Your task to perform on an android device: open app "Mercado Libre" (install if not already installed) Image 0: 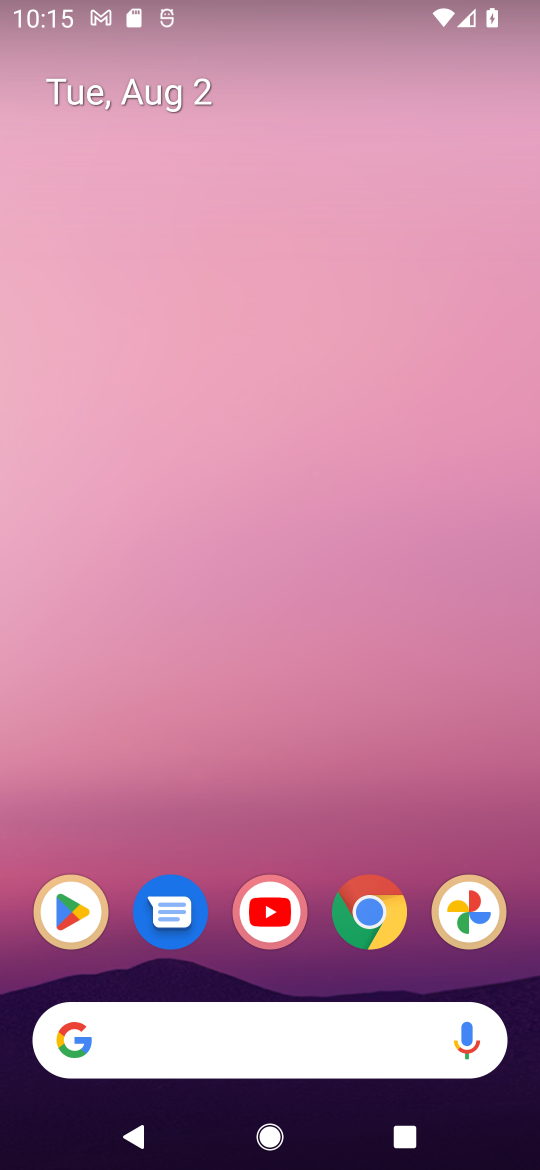
Step 0: drag from (251, 842) to (252, 342)
Your task to perform on an android device: open app "Mercado Libre" (install if not already installed) Image 1: 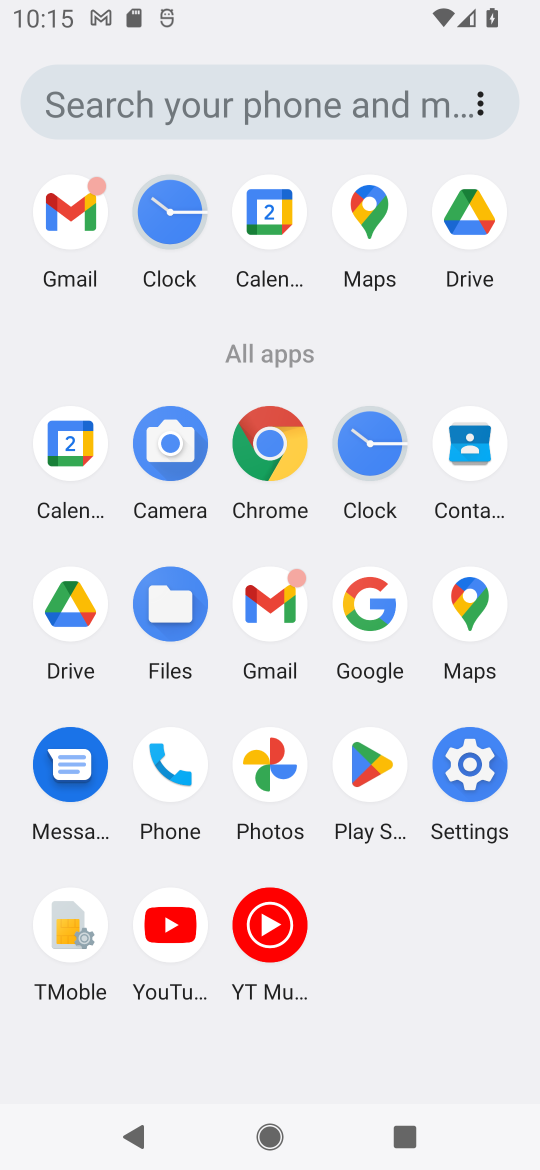
Step 1: click (371, 777)
Your task to perform on an android device: open app "Mercado Libre" (install if not already installed) Image 2: 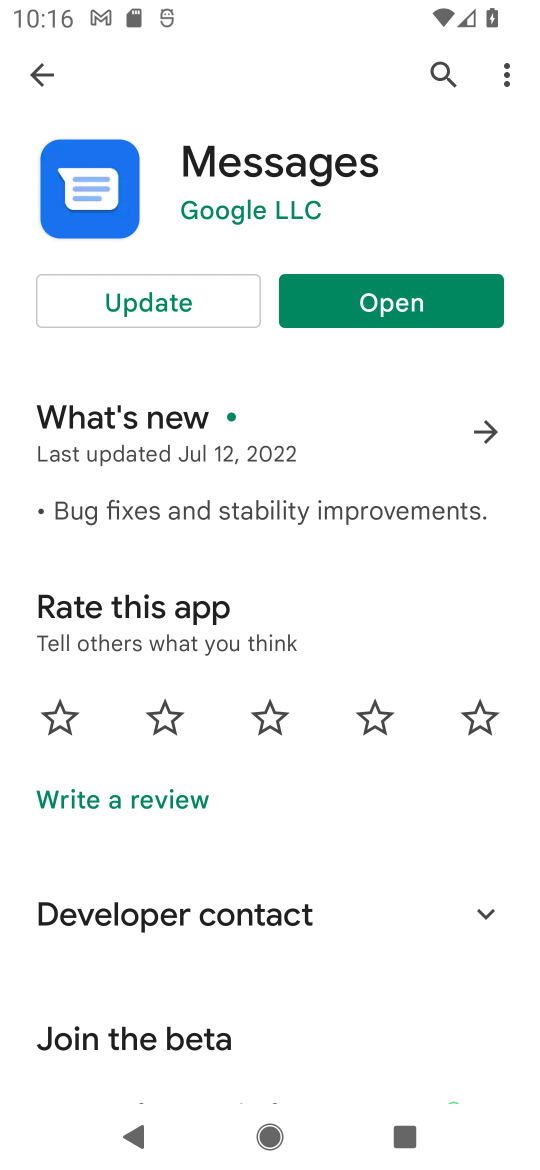
Step 2: click (438, 83)
Your task to perform on an android device: open app "Mercado Libre" (install if not already installed) Image 3: 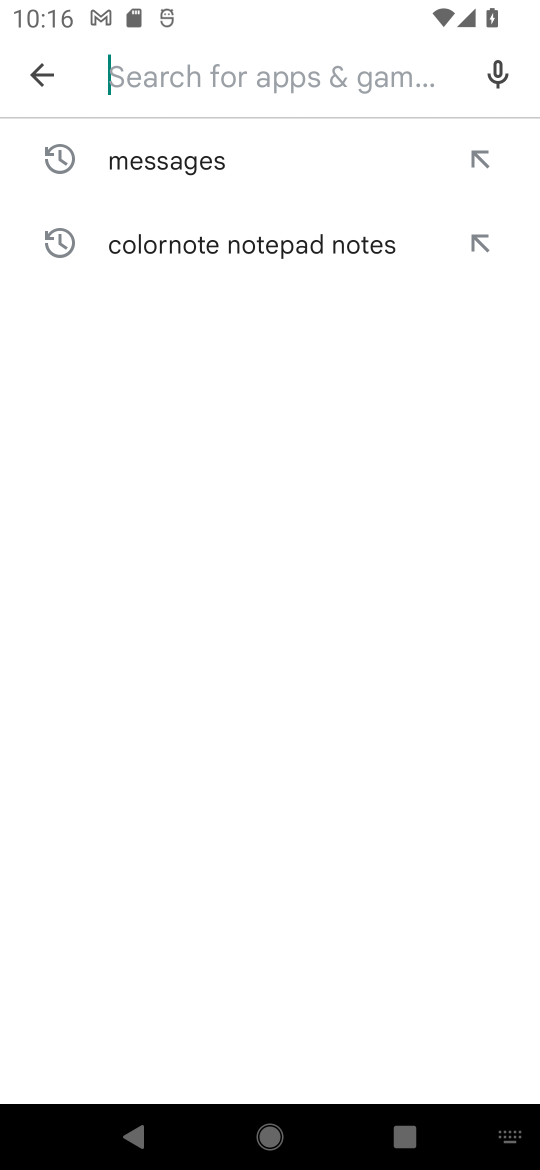
Step 3: type "Mercado Libre"
Your task to perform on an android device: open app "Mercado Libre" (install if not already installed) Image 4: 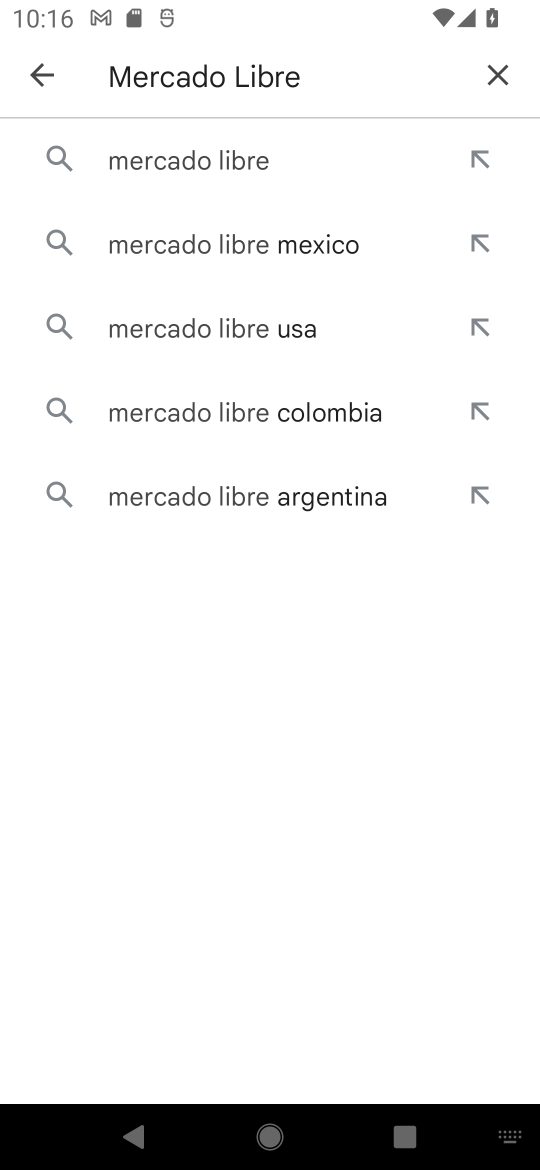
Step 4: click (209, 154)
Your task to perform on an android device: open app "Mercado Libre" (install if not already installed) Image 5: 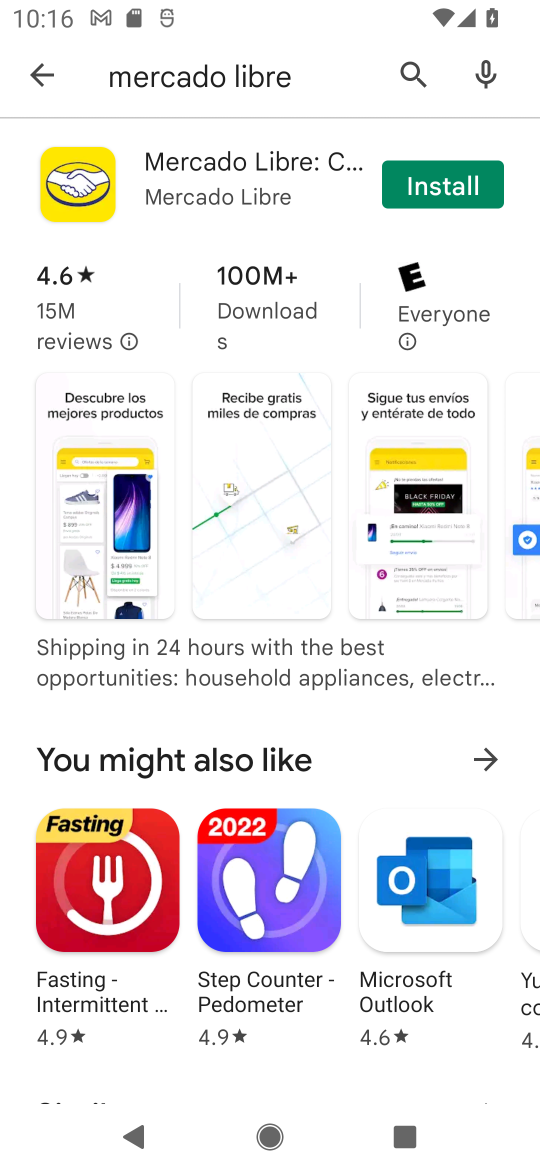
Step 5: click (423, 190)
Your task to perform on an android device: open app "Mercado Libre" (install if not already installed) Image 6: 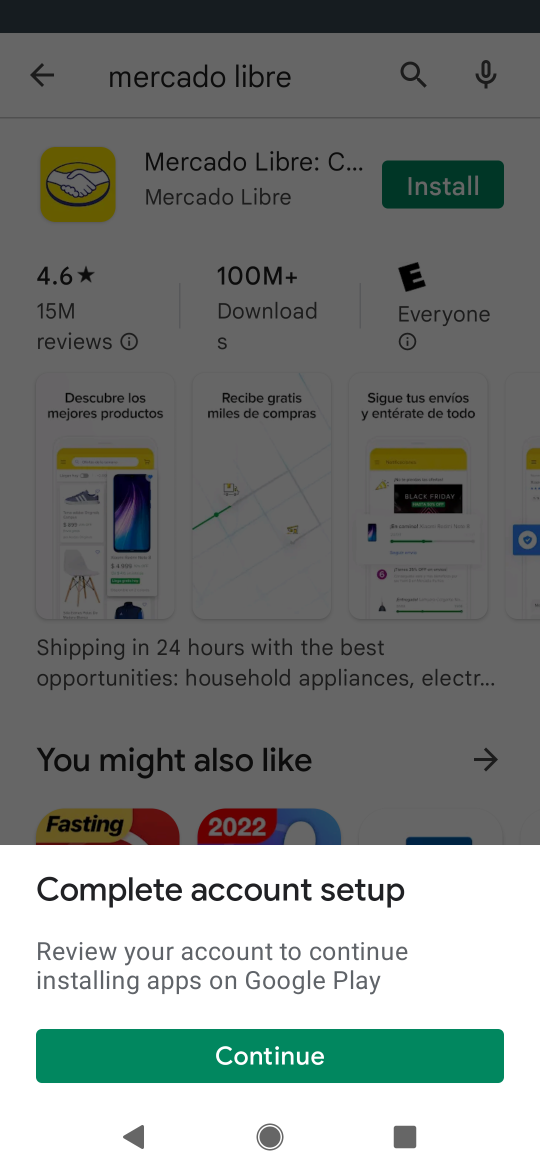
Step 6: click (208, 1074)
Your task to perform on an android device: open app "Mercado Libre" (install if not already installed) Image 7: 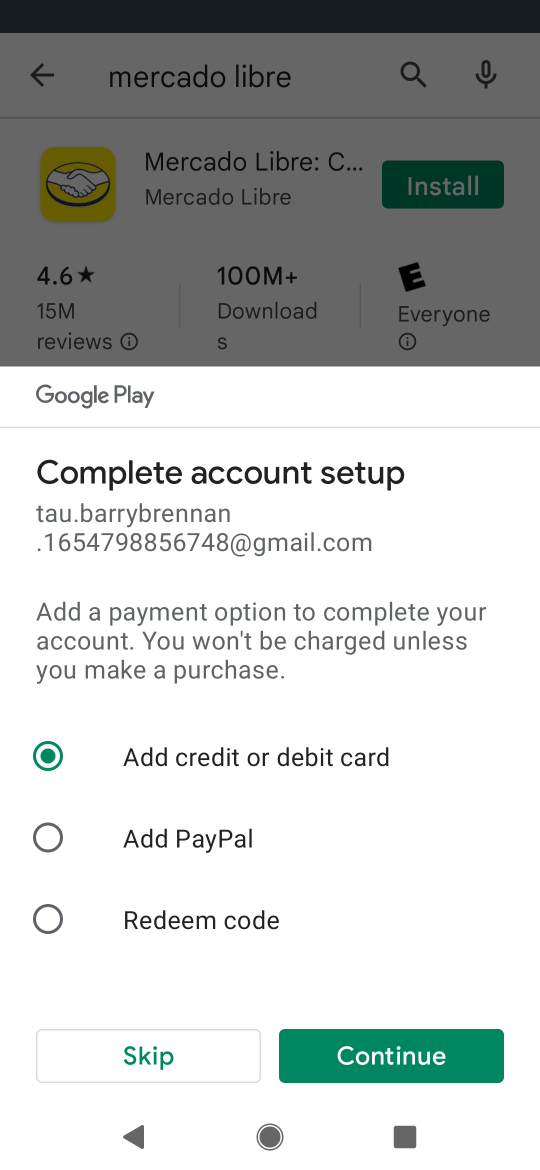
Step 7: click (104, 1060)
Your task to perform on an android device: open app "Mercado Libre" (install if not already installed) Image 8: 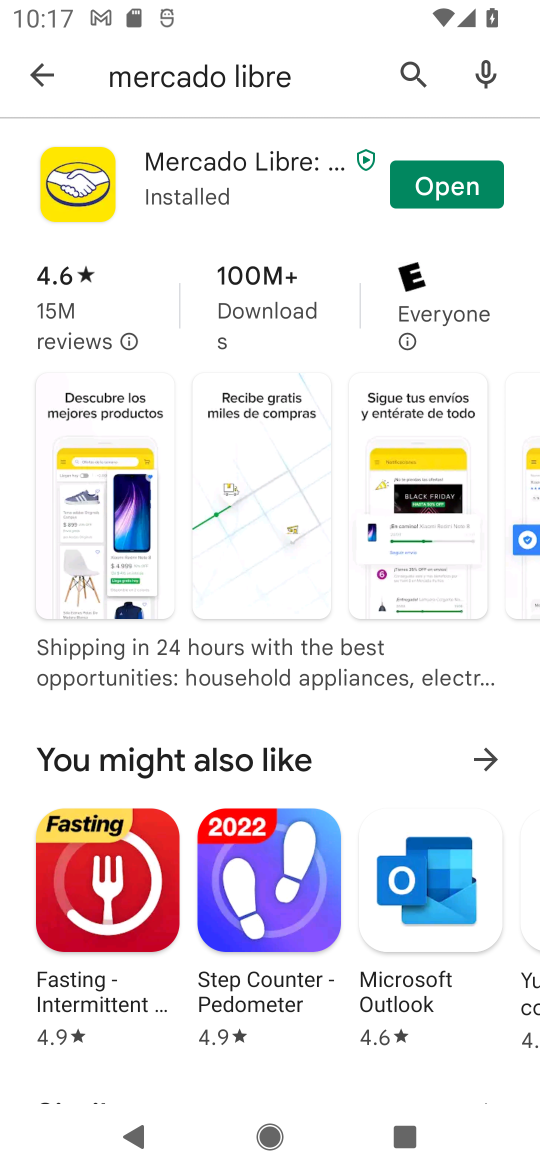
Step 8: click (426, 191)
Your task to perform on an android device: open app "Mercado Libre" (install if not already installed) Image 9: 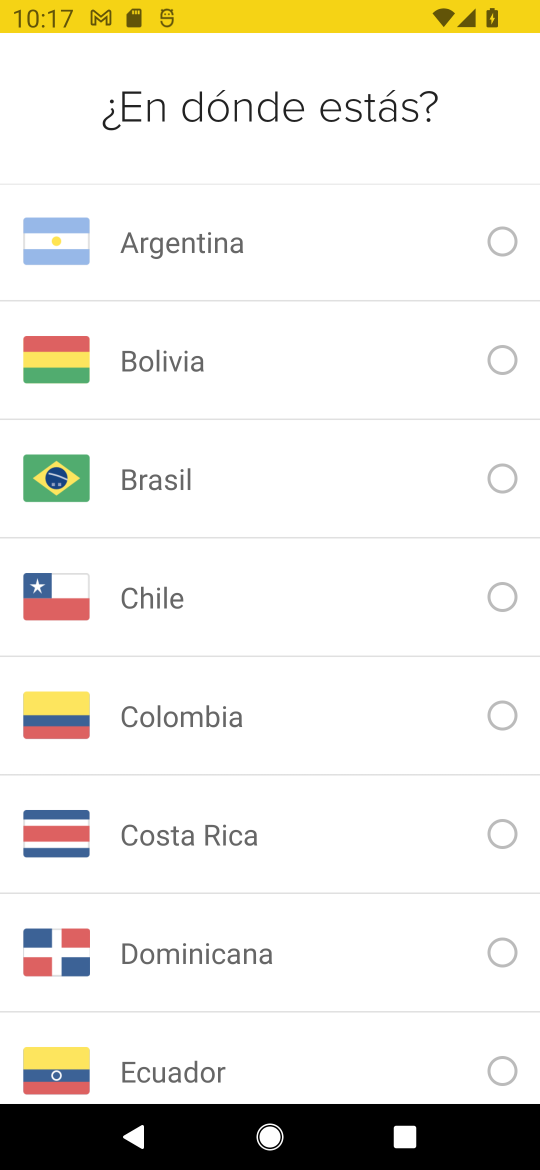
Step 9: task complete